Your task to perform on an android device: choose inbox layout in the gmail app Image 0: 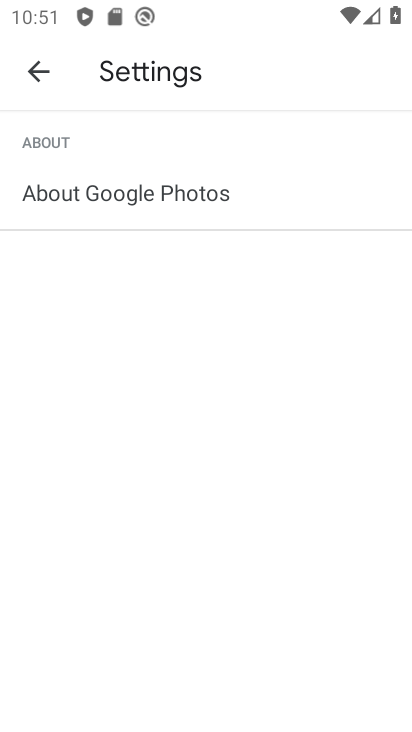
Step 0: press home button
Your task to perform on an android device: choose inbox layout in the gmail app Image 1: 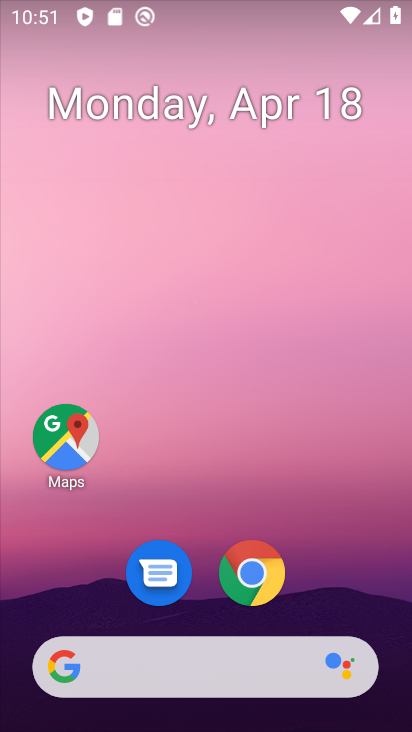
Step 1: drag from (331, 505) to (335, 96)
Your task to perform on an android device: choose inbox layout in the gmail app Image 2: 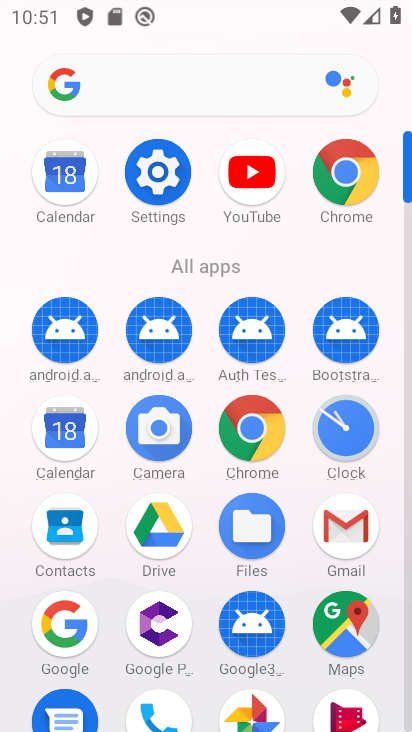
Step 2: drag from (288, 257) to (304, 51)
Your task to perform on an android device: choose inbox layout in the gmail app Image 3: 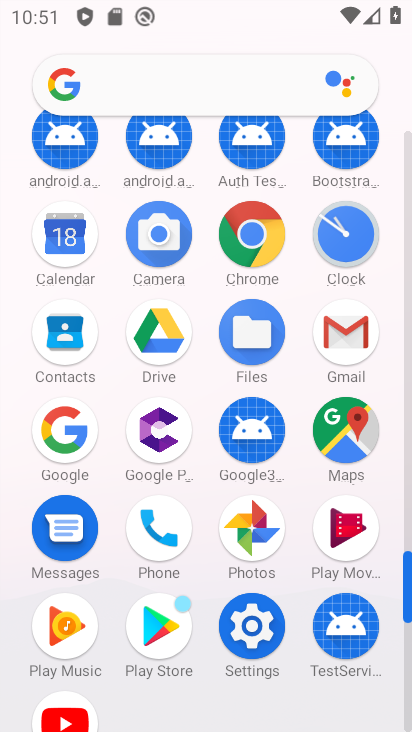
Step 3: click (344, 329)
Your task to perform on an android device: choose inbox layout in the gmail app Image 4: 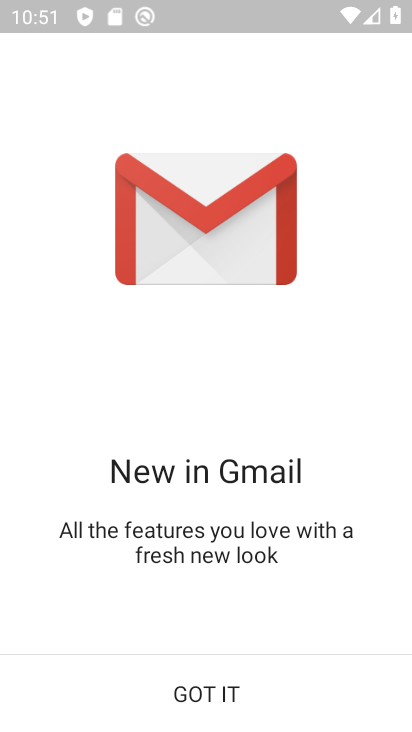
Step 4: click (210, 681)
Your task to perform on an android device: choose inbox layout in the gmail app Image 5: 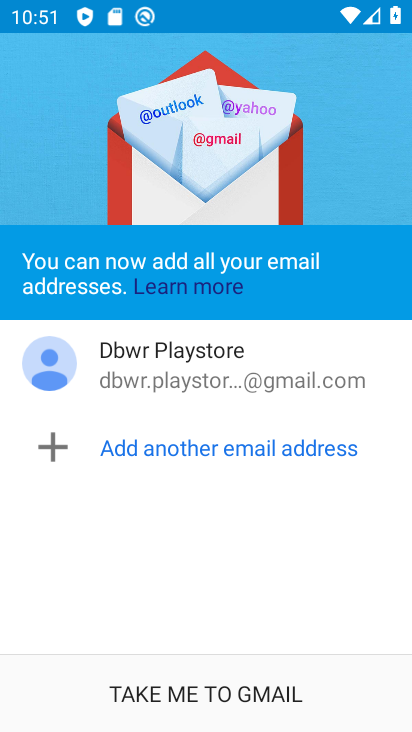
Step 5: click (210, 679)
Your task to perform on an android device: choose inbox layout in the gmail app Image 6: 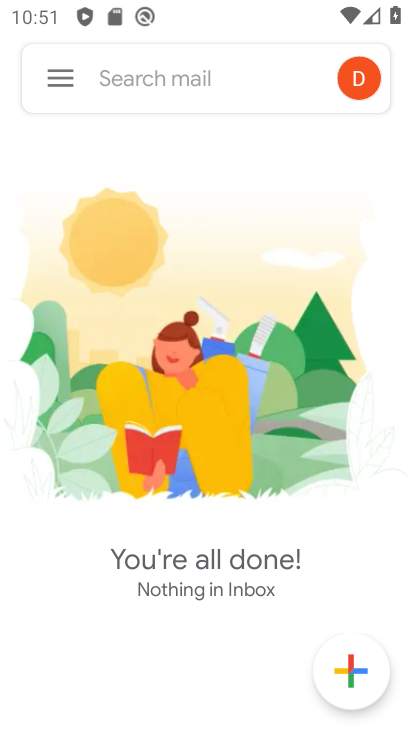
Step 6: click (53, 84)
Your task to perform on an android device: choose inbox layout in the gmail app Image 7: 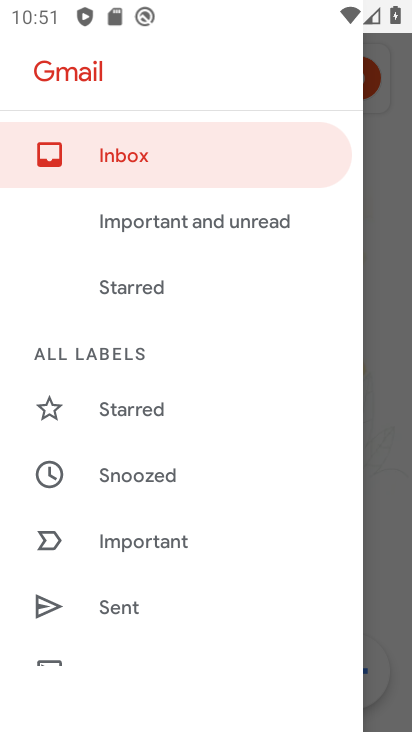
Step 7: drag from (302, 618) to (297, 236)
Your task to perform on an android device: choose inbox layout in the gmail app Image 8: 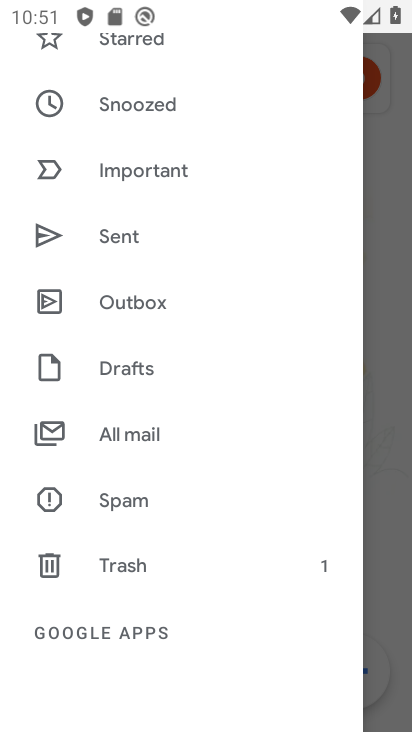
Step 8: drag from (260, 647) to (289, 295)
Your task to perform on an android device: choose inbox layout in the gmail app Image 9: 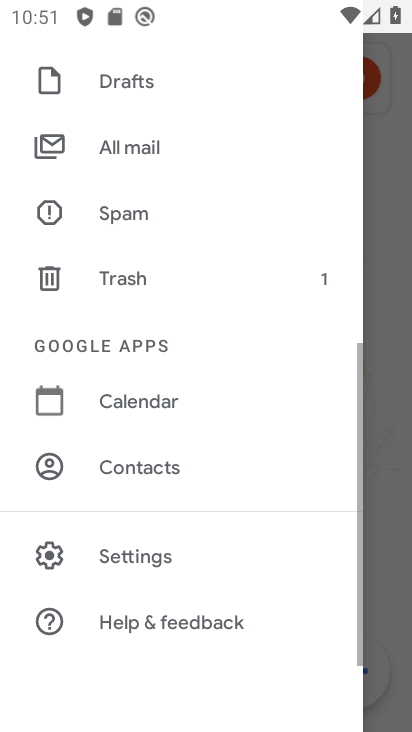
Step 9: click (133, 553)
Your task to perform on an android device: choose inbox layout in the gmail app Image 10: 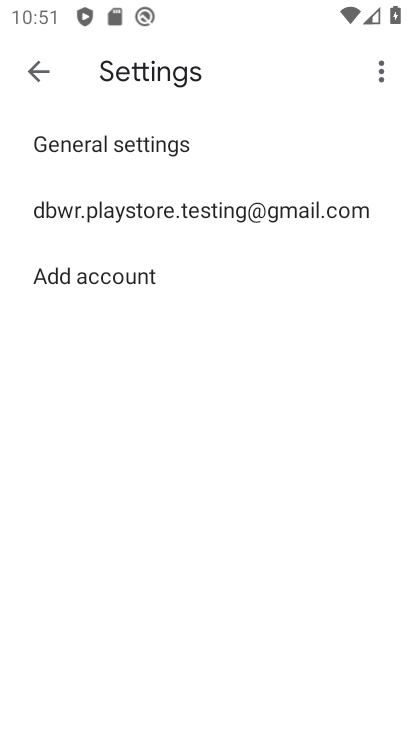
Step 10: click (247, 212)
Your task to perform on an android device: choose inbox layout in the gmail app Image 11: 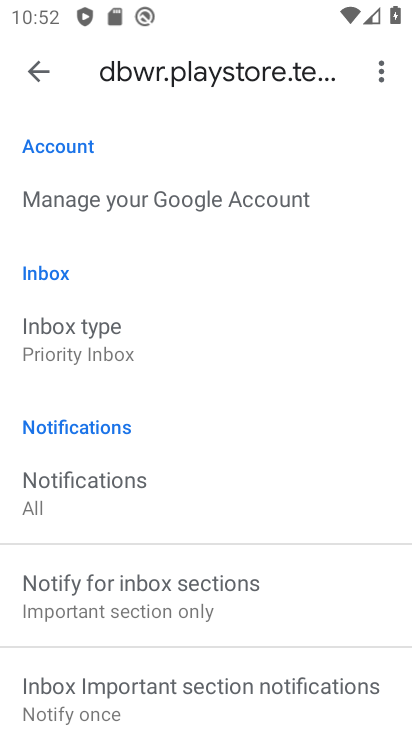
Step 11: click (107, 340)
Your task to perform on an android device: choose inbox layout in the gmail app Image 12: 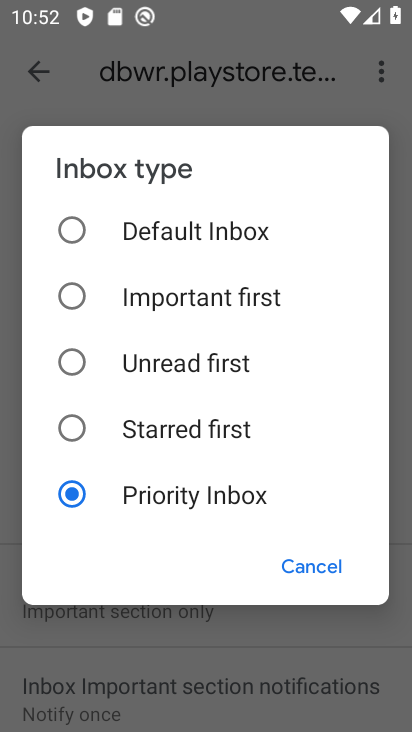
Step 12: click (167, 299)
Your task to perform on an android device: choose inbox layout in the gmail app Image 13: 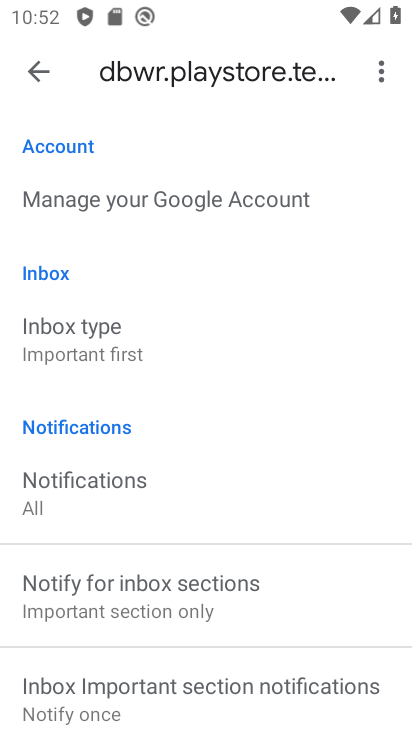
Step 13: task complete